Your task to perform on an android device: Show me popular videos on Youtube Image 0: 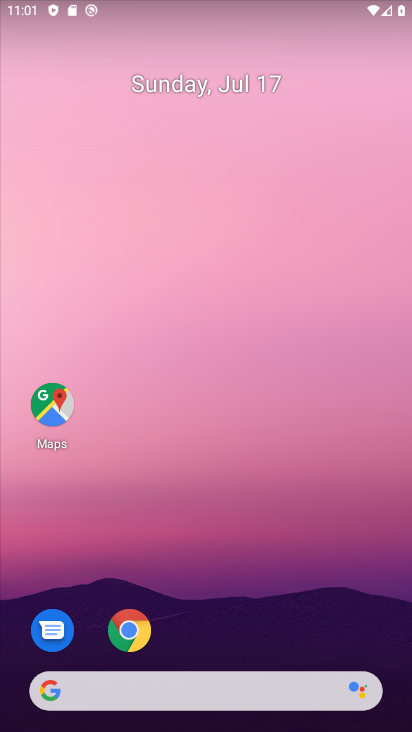
Step 0: drag from (209, 594) to (236, 11)
Your task to perform on an android device: Show me popular videos on Youtube Image 1: 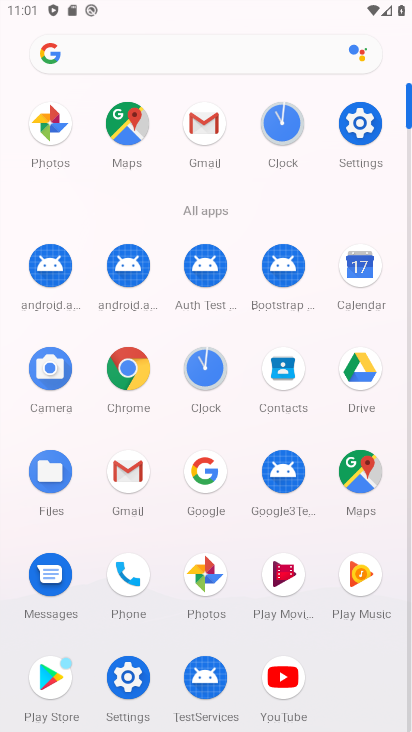
Step 1: click (272, 692)
Your task to perform on an android device: Show me popular videos on Youtube Image 2: 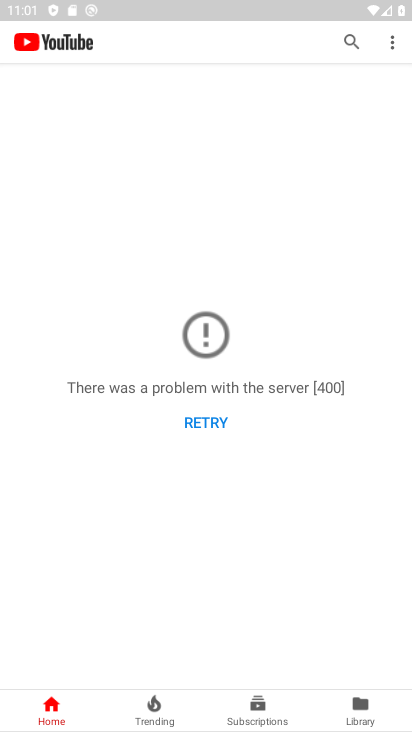
Step 2: click (206, 421)
Your task to perform on an android device: Show me popular videos on Youtube Image 3: 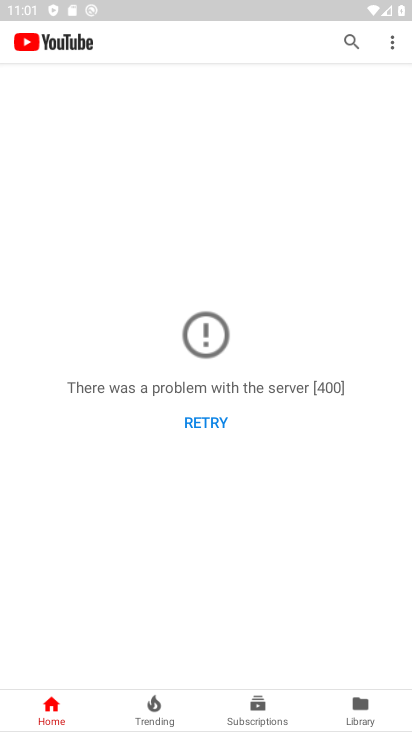
Step 3: click (209, 418)
Your task to perform on an android device: Show me popular videos on Youtube Image 4: 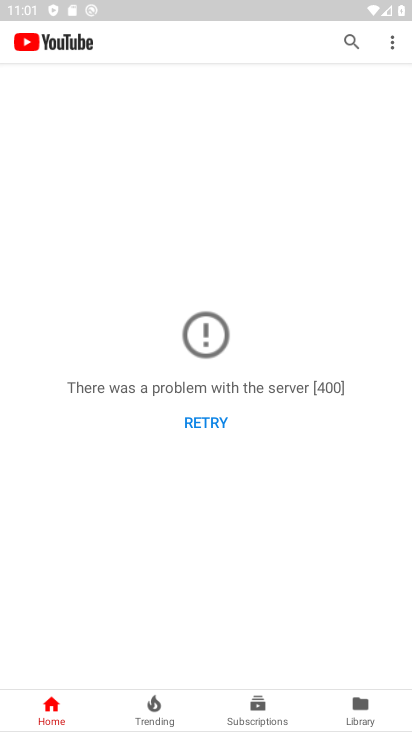
Step 4: task complete